Your task to perform on an android device: change notification settings in the gmail app Image 0: 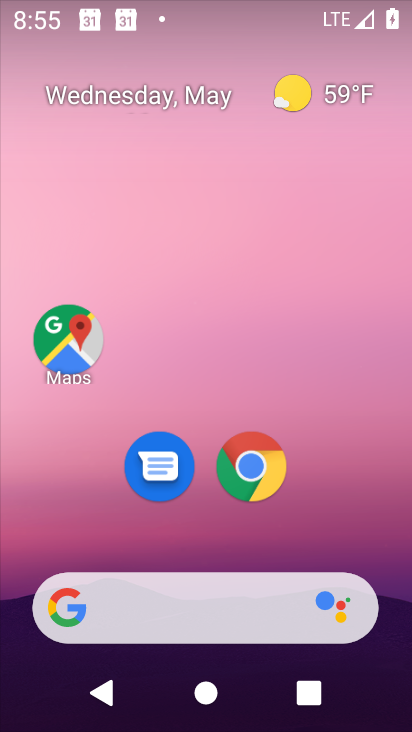
Step 0: drag from (367, 545) to (362, 272)
Your task to perform on an android device: change notification settings in the gmail app Image 1: 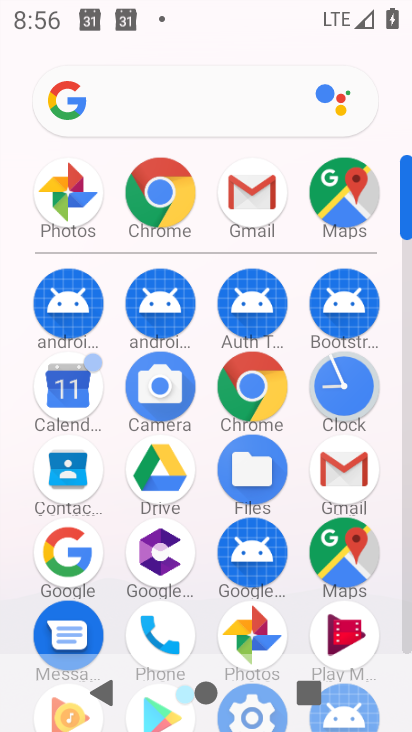
Step 1: drag from (249, 632) to (308, 296)
Your task to perform on an android device: change notification settings in the gmail app Image 2: 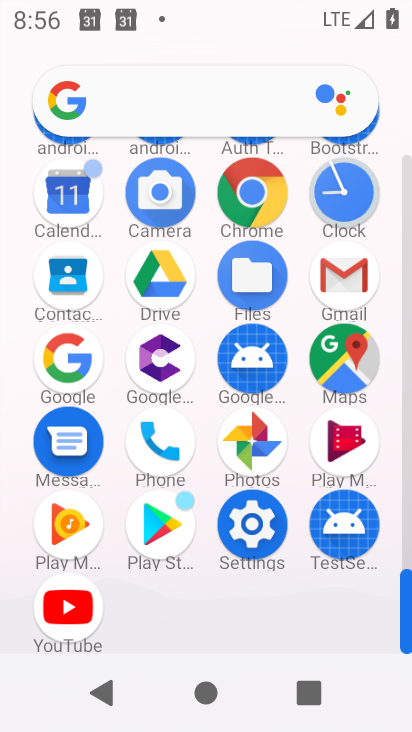
Step 2: click (240, 526)
Your task to perform on an android device: change notification settings in the gmail app Image 3: 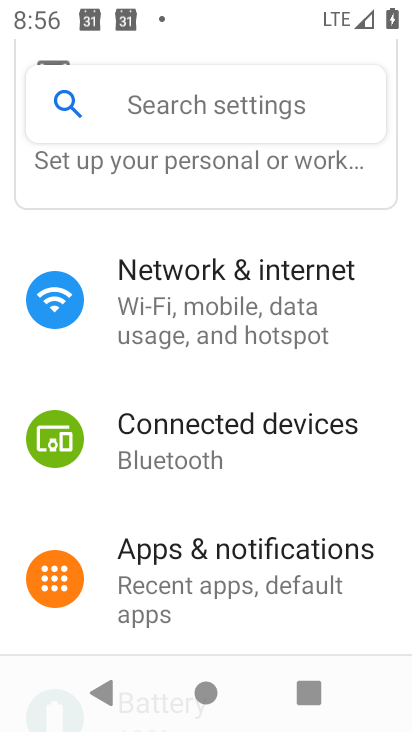
Step 3: click (188, 567)
Your task to perform on an android device: change notification settings in the gmail app Image 4: 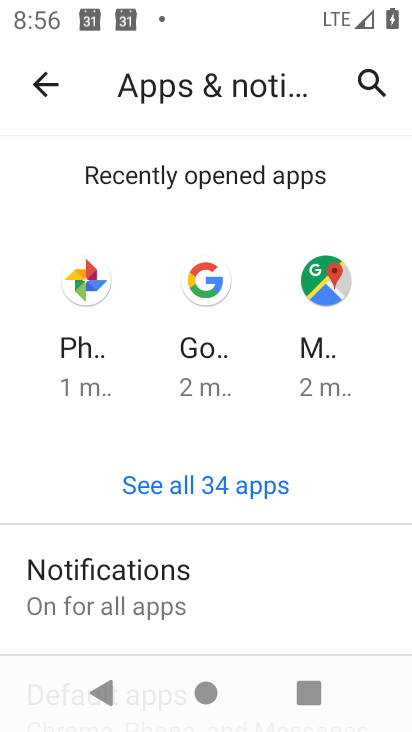
Step 4: press home button
Your task to perform on an android device: change notification settings in the gmail app Image 5: 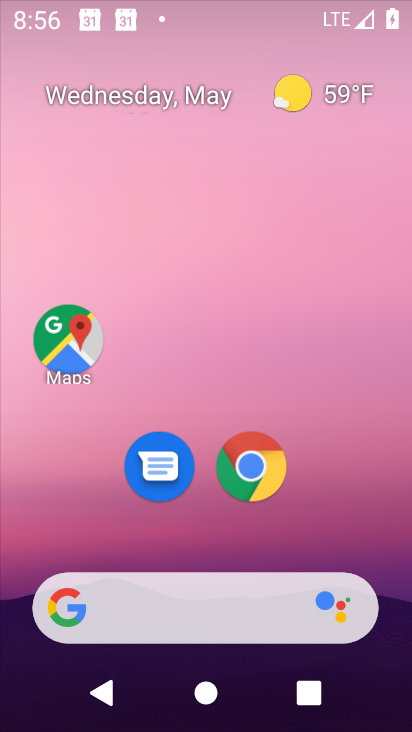
Step 5: drag from (313, 546) to (334, 221)
Your task to perform on an android device: change notification settings in the gmail app Image 6: 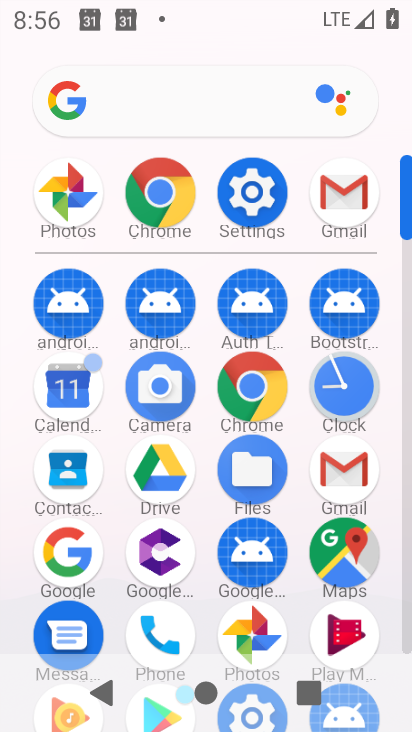
Step 6: click (361, 465)
Your task to perform on an android device: change notification settings in the gmail app Image 7: 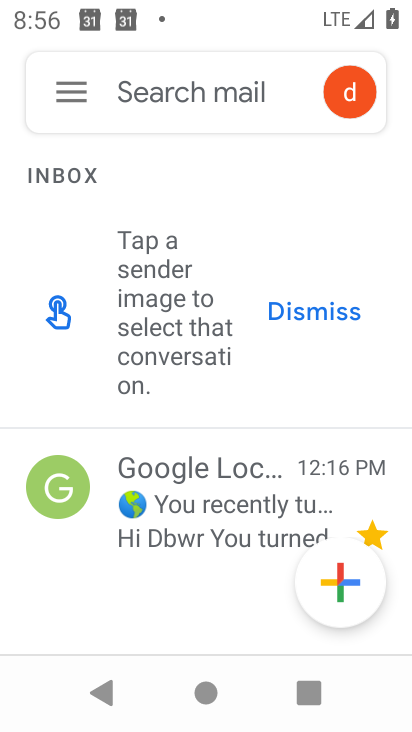
Step 7: click (72, 97)
Your task to perform on an android device: change notification settings in the gmail app Image 8: 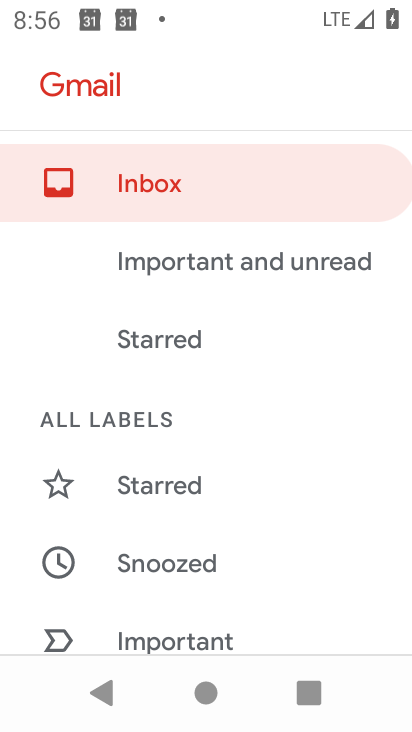
Step 8: drag from (181, 530) to (226, 275)
Your task to perform on an android device: change notification settings in the gmail app Image 9: 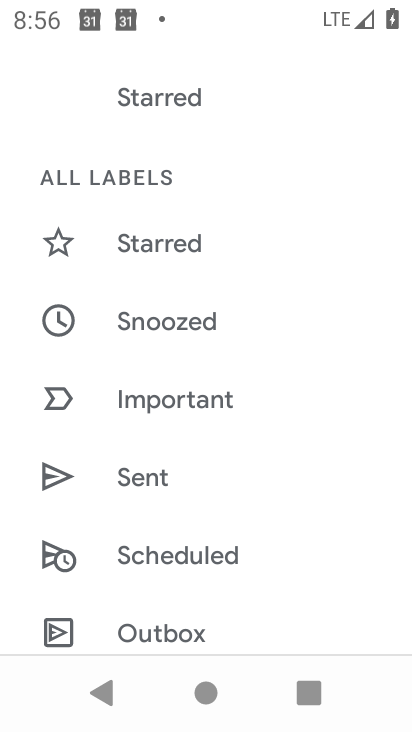
Step 9: drag from (306, 587) to (294, 125)
Your task to perform on an android device: change notification settings in the gmail app Image 10: 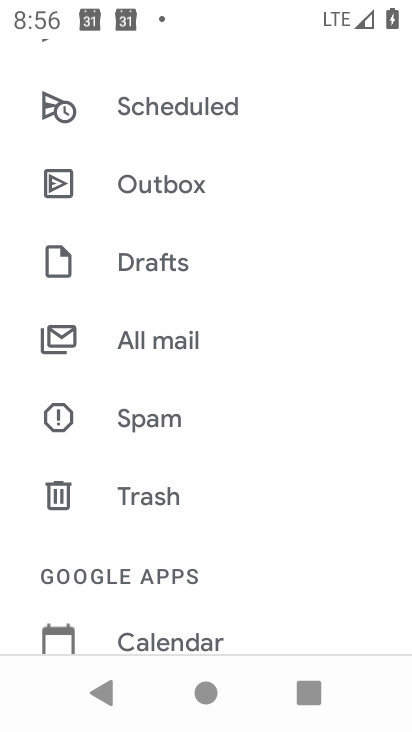
Step 10: drag from (238, 601) to (233, 193)
Your task to perform on an android device: change notification settings in the gmail app Image 11: 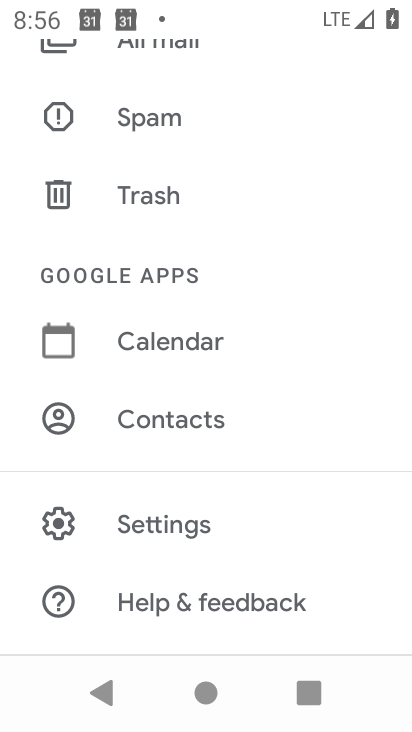
Step 11: click (149, 530)
Your task to perform on an android device: change notification settings in the gmail app Image 12: 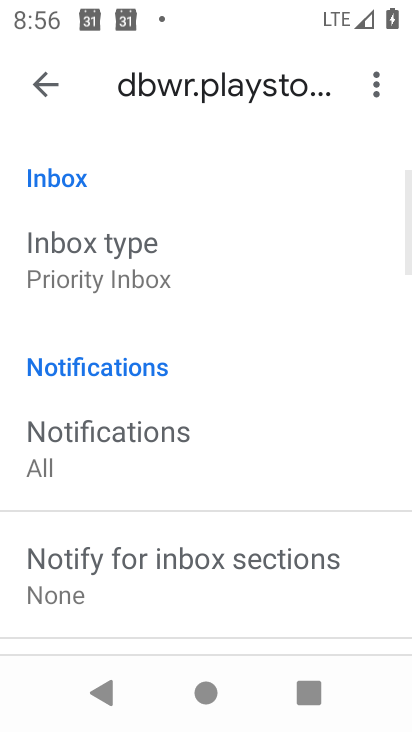
Step 12: click (129, 465)
Your task to perform on an android device: change notification settings in the gmail app Image 13: 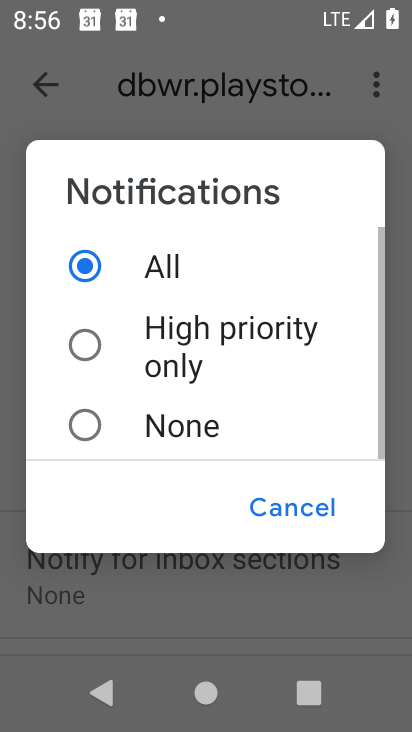
Step 13: click (155, 352)
Your task to perform on an android device: change notification settings in the gmail app Image 14: 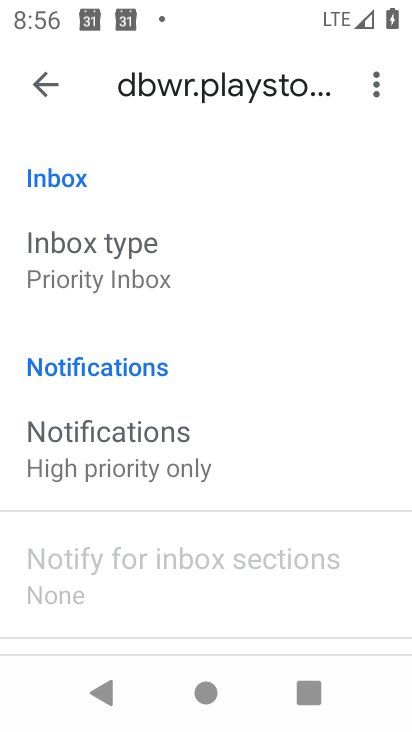
Step 14: task complete